Your task to perform on an android device: star an email in the gmail app Image 0: 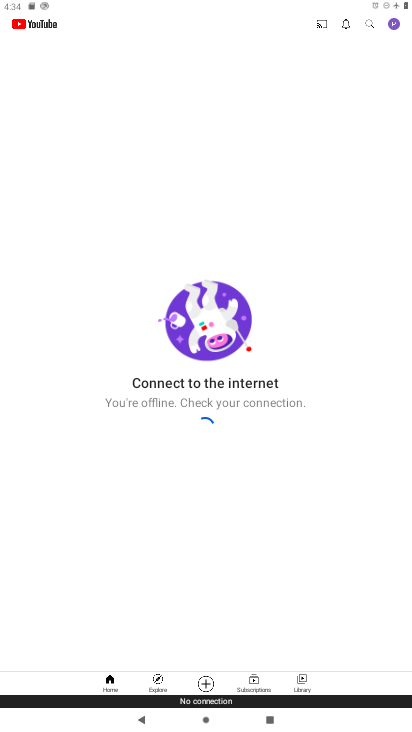
Step 0: press home button
Your task to perform on an android device: star an email in the gmail app Image 1: 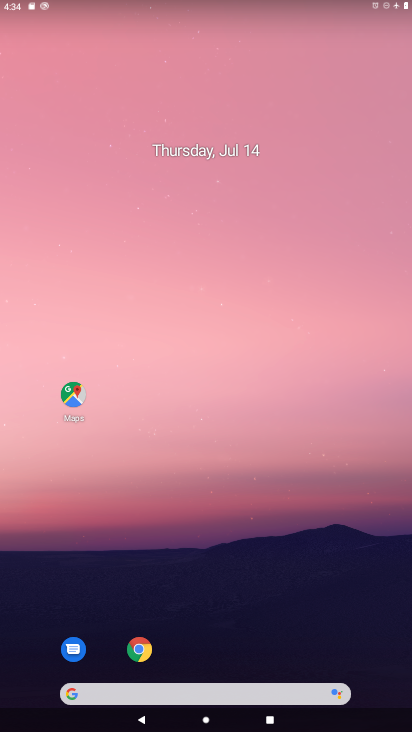
Step 1: drag from (214, 640) to (227, 21)
Your task to perform on an android device: star an email in the gmail app Image 2: 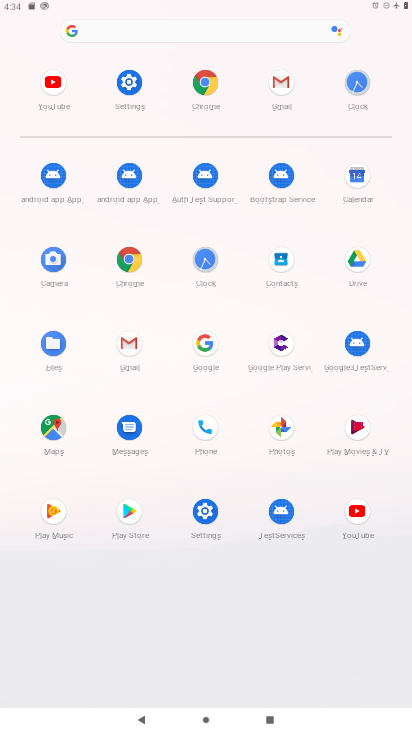
Step 2: click (135, 352)
Your task to perform on an android device: star an email in the gmail app Image 3: 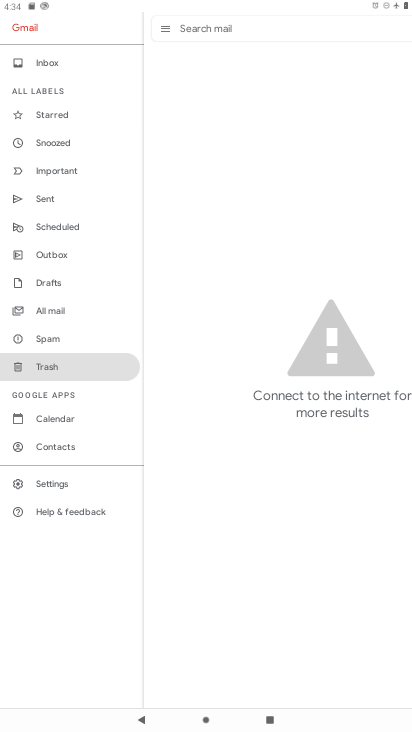
Step 3: drag from (65, 72) to (81, 292)
Your task to perform on an android device: star an email in the gmail app Image 4: 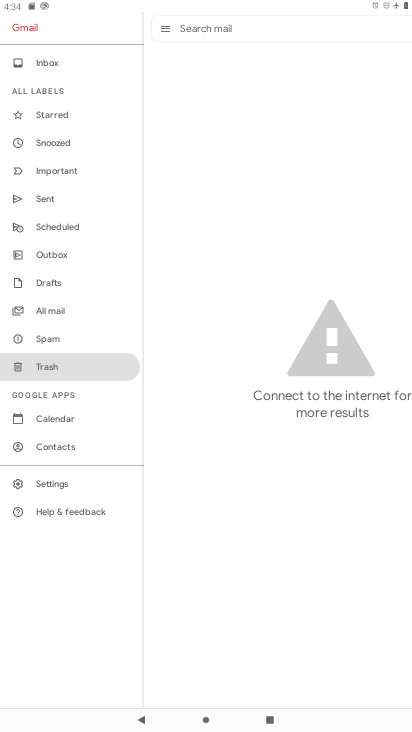
Step 4: click (39, 66)
Your task to perform on an android device: star an email in the gmail app Image 5: 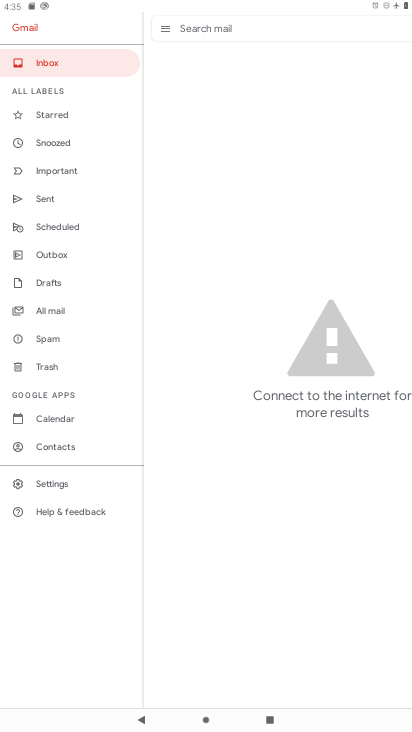
Step 5: task complete